Your task to perform on an android device: read, delete, or share a saved page in the chrome app Image 0: 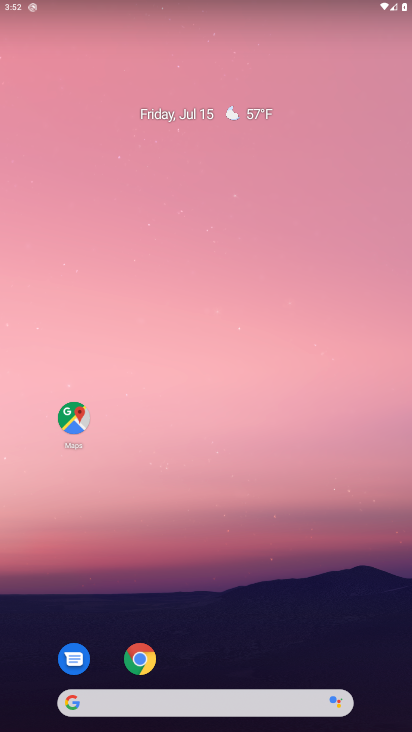
Step 0: click (145, 660)
Your task to perform on an android device: read, delete, or share a saved page in the chrome app Image 1: 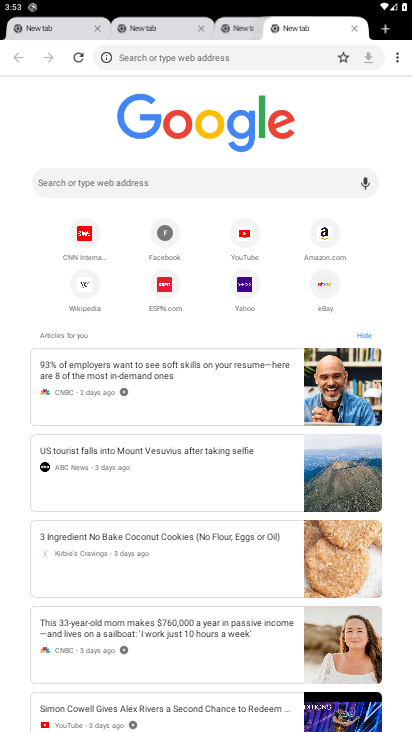
Step 1: click (400, 60)
Your task to perform on an android device: read, delete, or share a saved page in the chrome app Image 2: 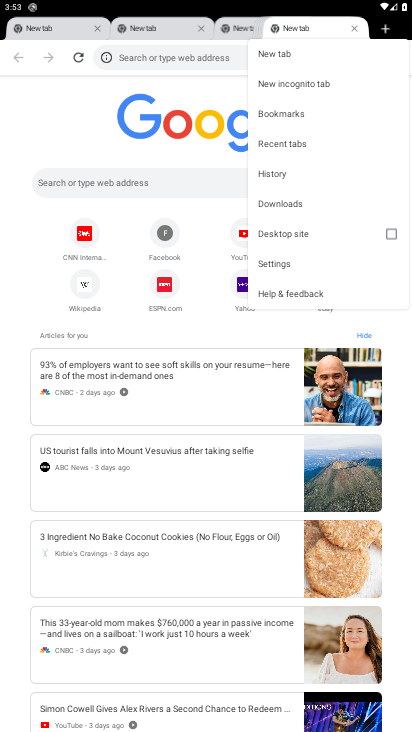
Step 2: click (399, 55)
Your task to perform on an android device: read, delete, or share a saved page in the chrome app Image 3: 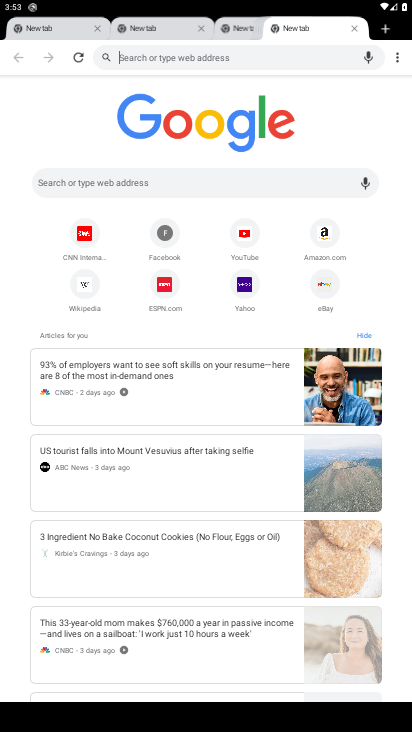
Step 3: click (400, 50)
Your task to perform on an android device: read, delete, or share a saved page in the chrome app Image 4: 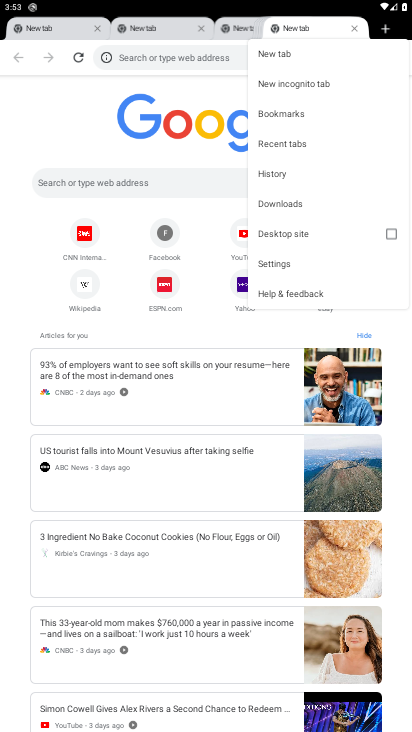
Step 4: task complete